Your task to perform on an android device: Open calendar and show me the fourth week of next month Image 0: 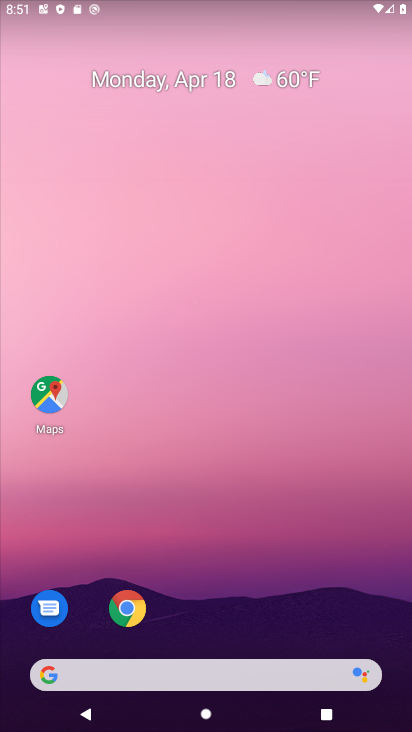
Step 0: drag from (203, 583) to (270, 118)
Your task to perform on an android device: Open calendar and show me the fourth week of next month Image 1: 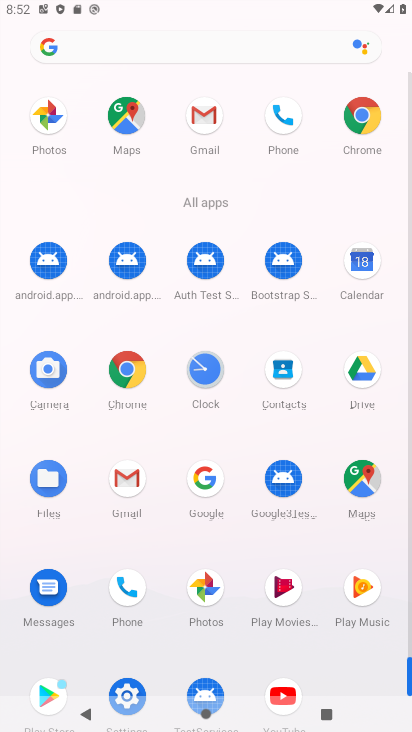
Step 1: click (362, 262)
Your task to perform on an android device: Open calendar and show me the fourth week of next month Image 2: 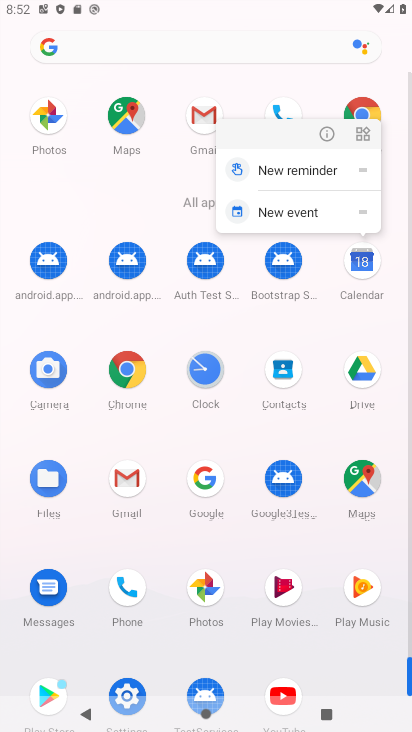
Step 2: click (326, 133)
Your task to perform on an android device: Open calendar and show me the fourth week of next month Image 3: 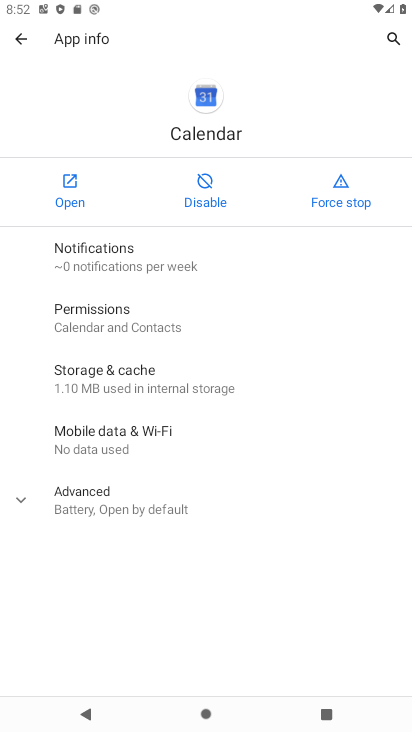
Step 3: click (69, 184)
Your task to perform on an android device: Open calendar and show me the fourth week of next month Image 4: 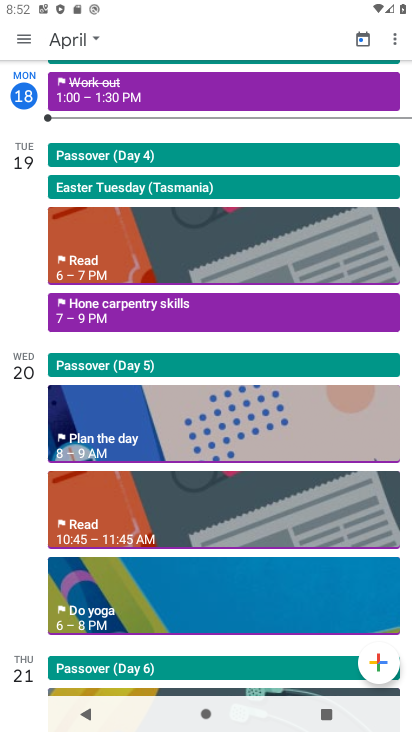
Step 4: click (70, 45)
Your task to perform on an android device: Open calendar and show me the fourth week of next month Image 5: 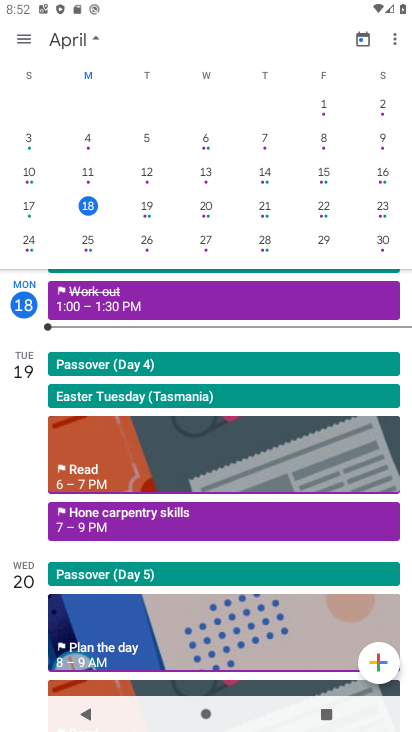
Step 5: drag from (325, 209) to (0, 216)
Your task to perform on an android device: Open calendar and show me the fourth week of next month Image 6: 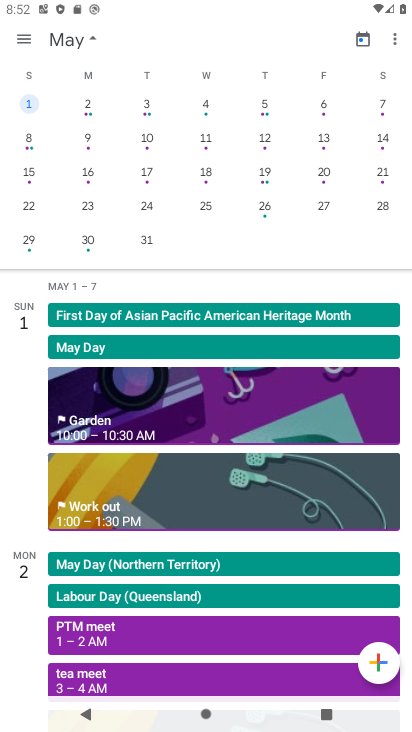
Step 6: click (245, 207)
Your task to perform on an android device: Open calendar and show me the fourth week of next month Image 7: 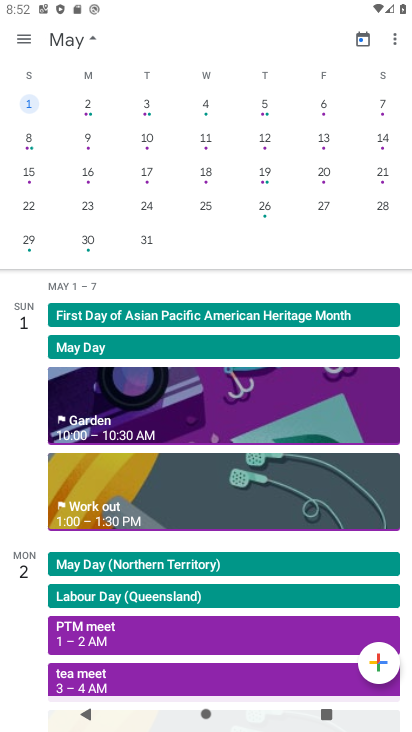
Step 7: click (268, 203)
Your task to perform on an android device: Open calendar and show me the fourth week of next month Image 8: 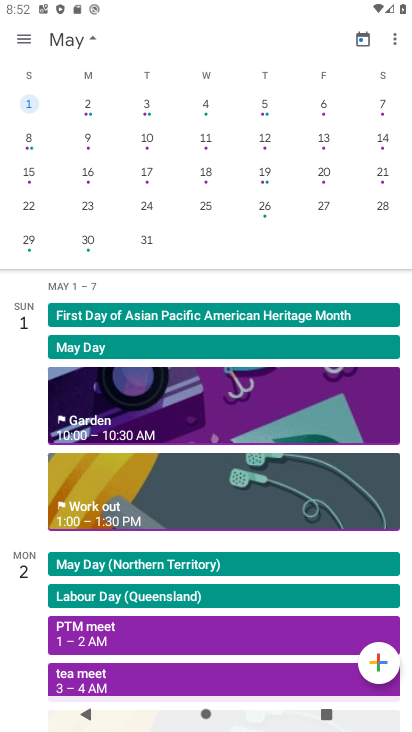
Step 8: click (266, 201)
Your task to perform on an android device: Open calendar and show me the fourth week of next month Image 9: 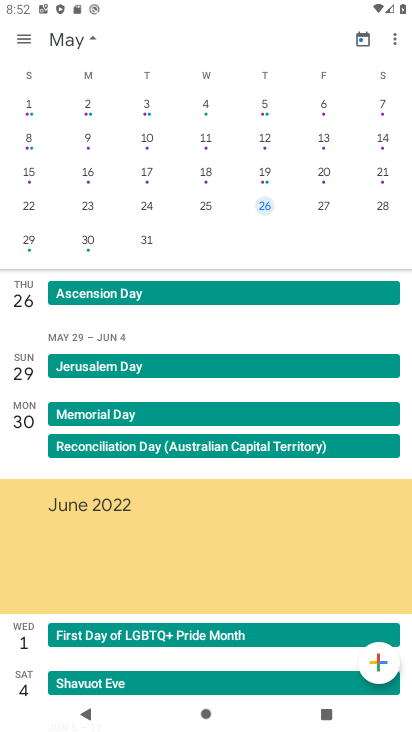
Step 9: click (205, 200)
Your task to perform on an android device: Open calendar and show me the fourth week of next month Image 10: 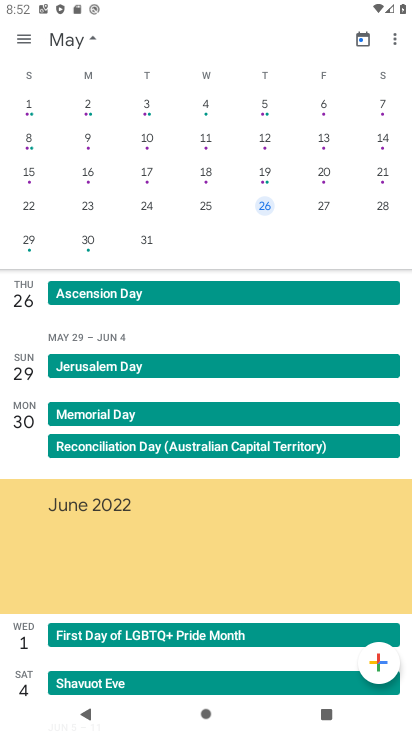
Step 10: click (205, 200)
Your task to perform on an android device: Open calendar and show me the fourth week of next month Image 11: 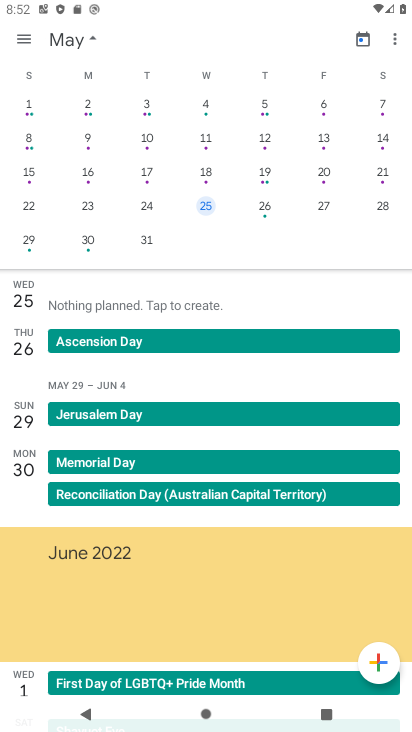
Step 11: task complete